Your task to perform on an android device: Open battery settings Image 0: 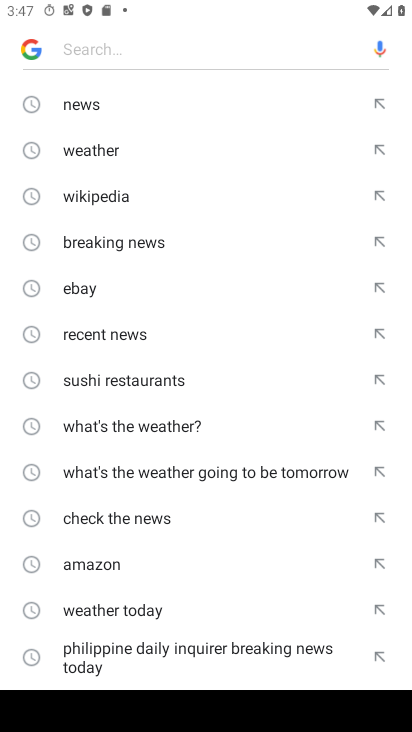
Step 0: press home button
Your task to perform on an android device: Open battery settings Image 1: 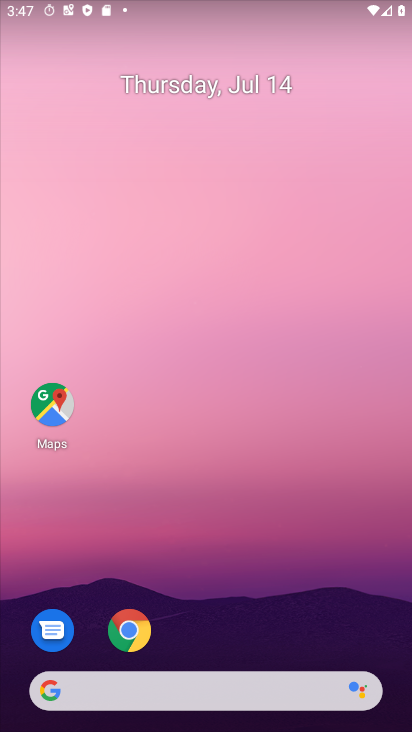
Step 1: drag from (213, 715) to (199, 113)
Your task to perform on an android device: Open battery settings Image 2: 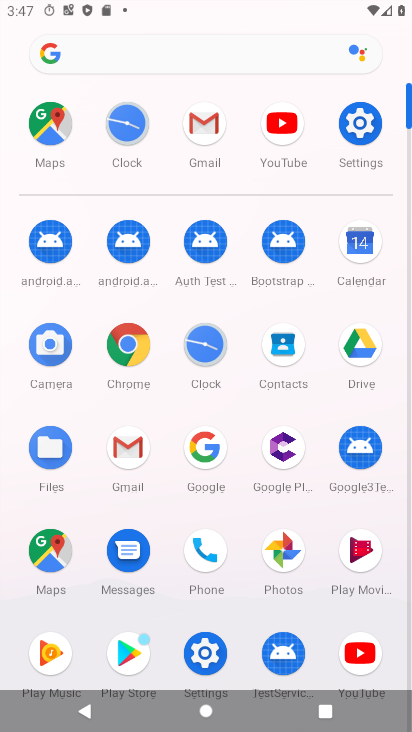
Step 2: click (358, 117)
Your task to perform on an android device: Open battery settings Image 3: 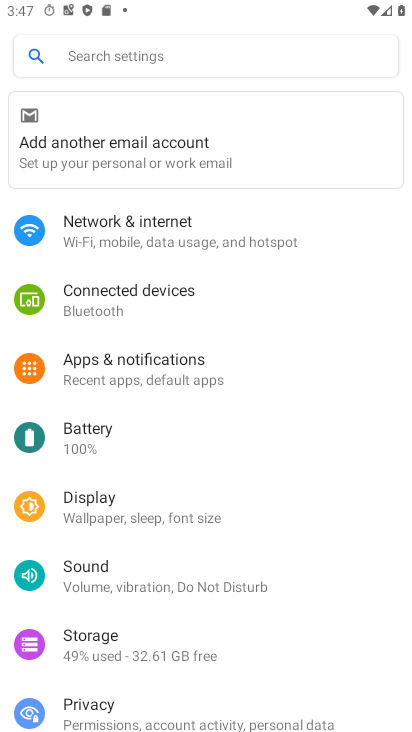
Step 3: click (77, 421)
Your task to perform on an android device: Open battery settings Image 4: 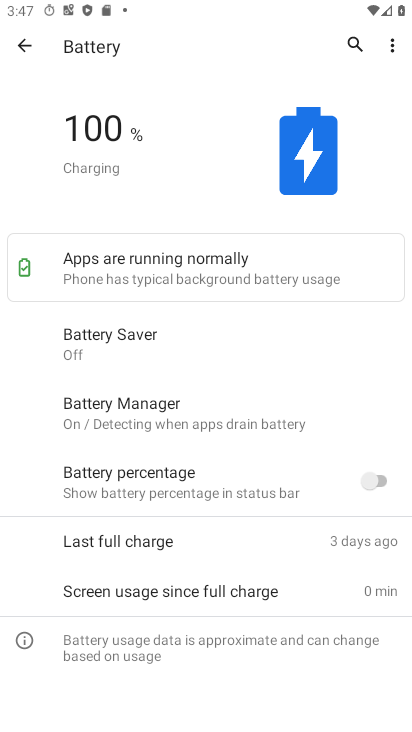
Step 4: task complete